Your task to perform on an android device: Go to wifi settings Image 0: 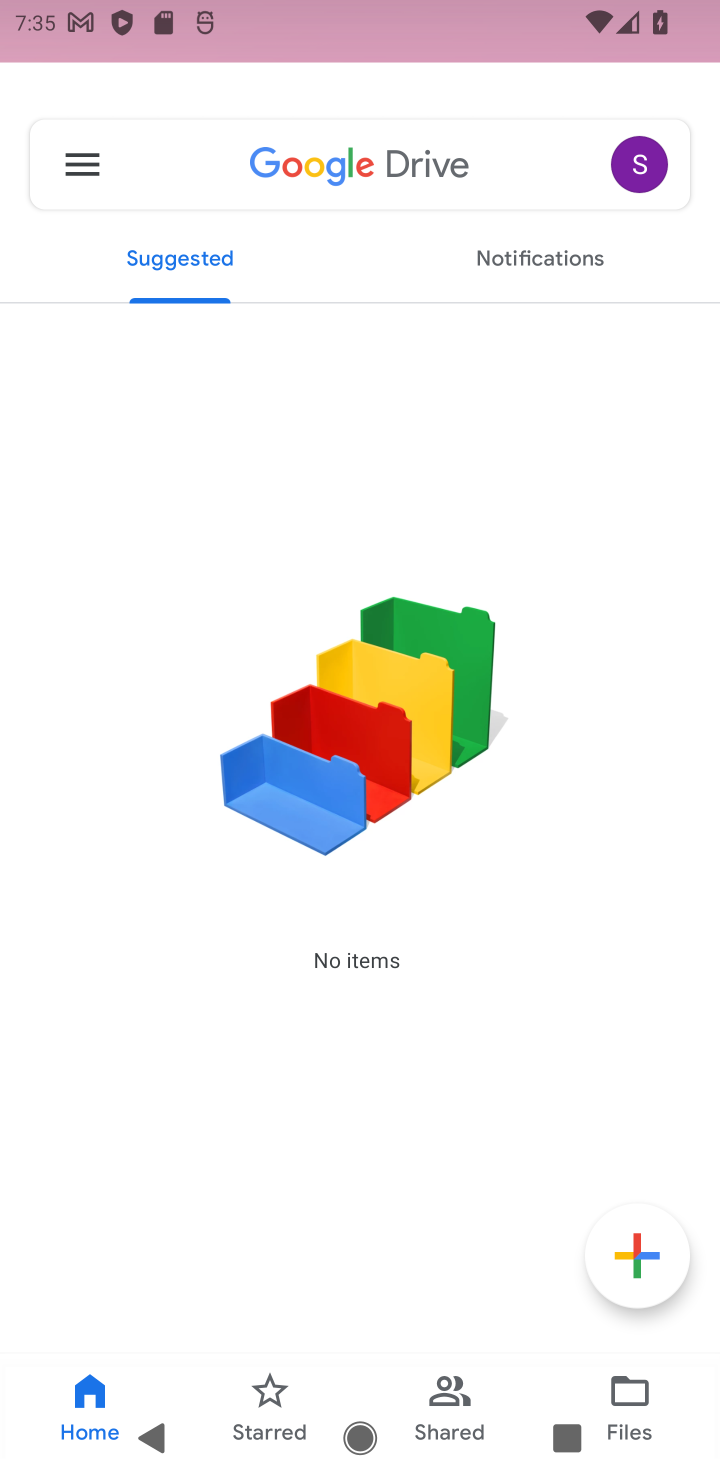
Step 0: press home button
Your task to perform on an android device: Go to wifi settings Image 1: 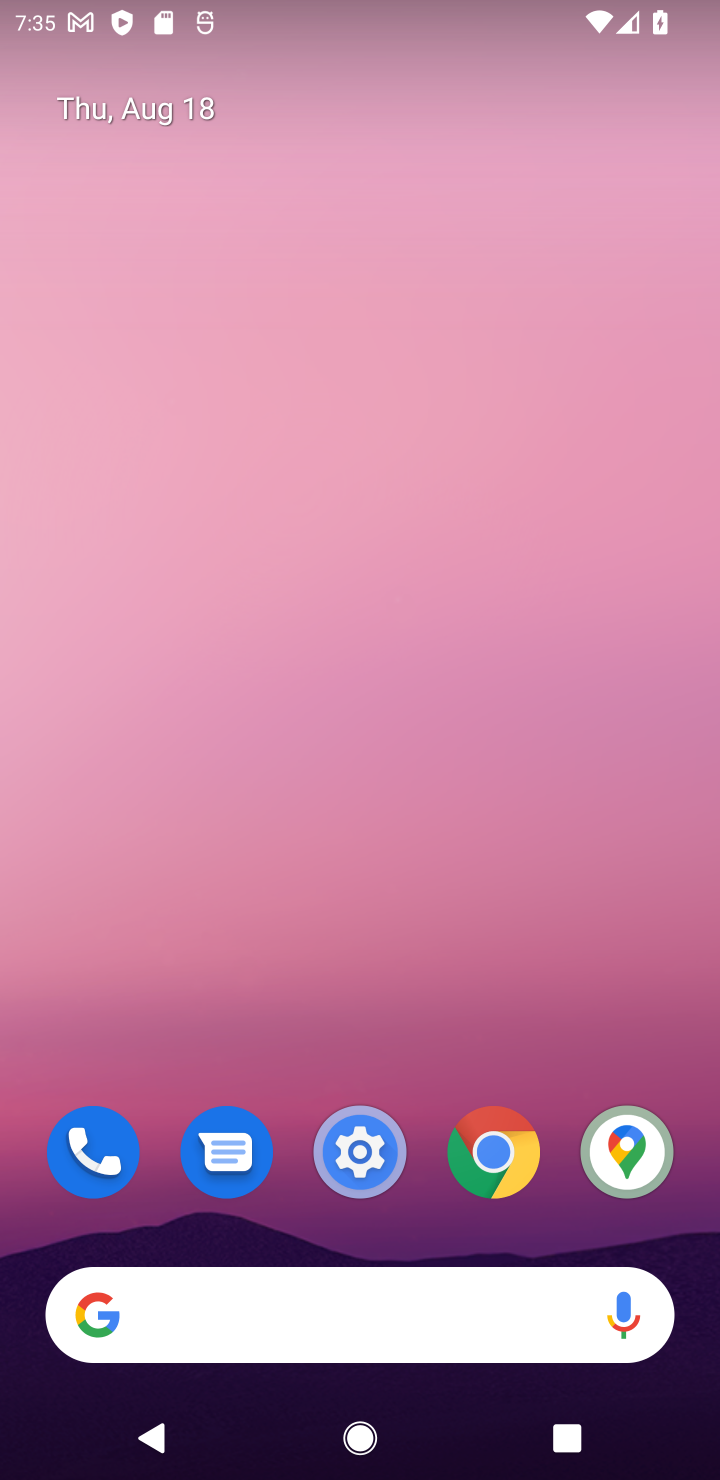
Step 1: click (385, 1187)
Your task to perform on an android device: Go to wifi settings Image 2: 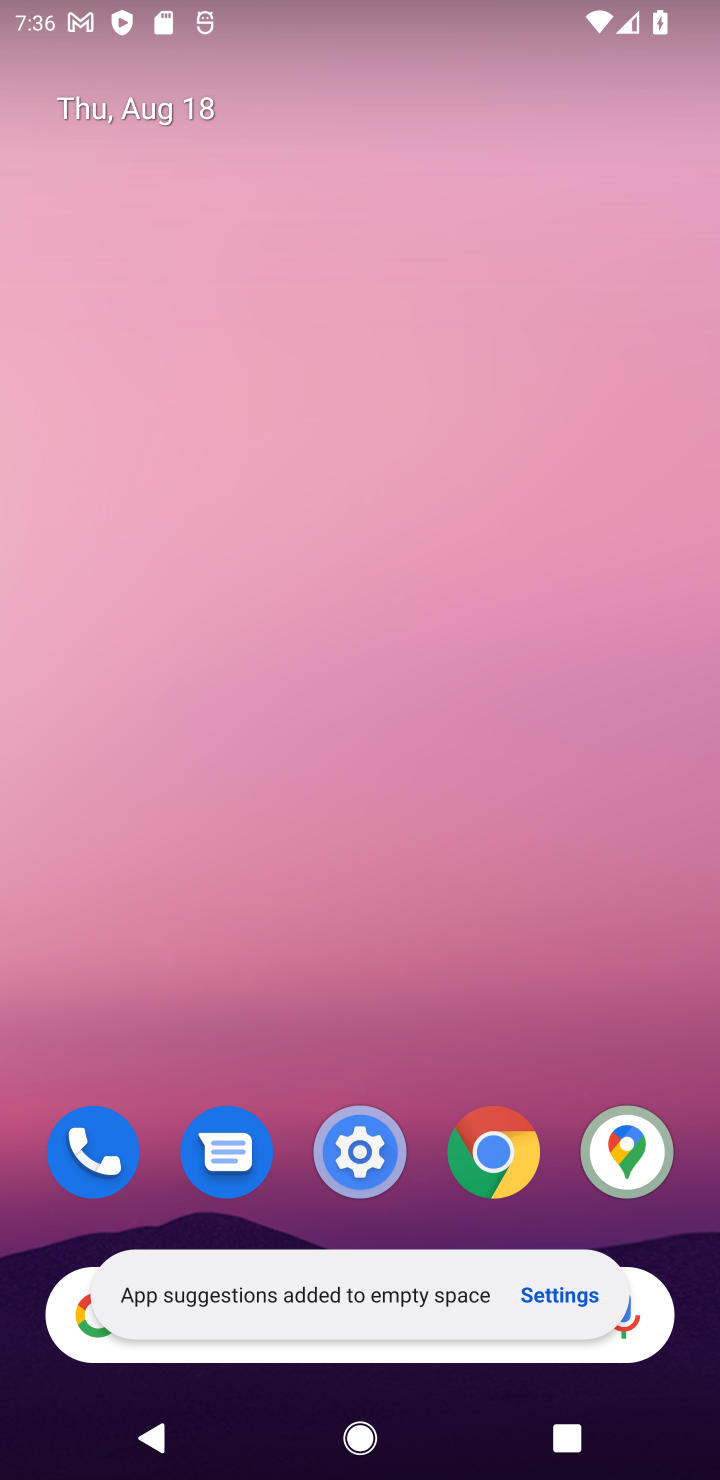
Step 2: click (371, 1157)
Your task to perform on an android device: Go to wifi settings Image 3: 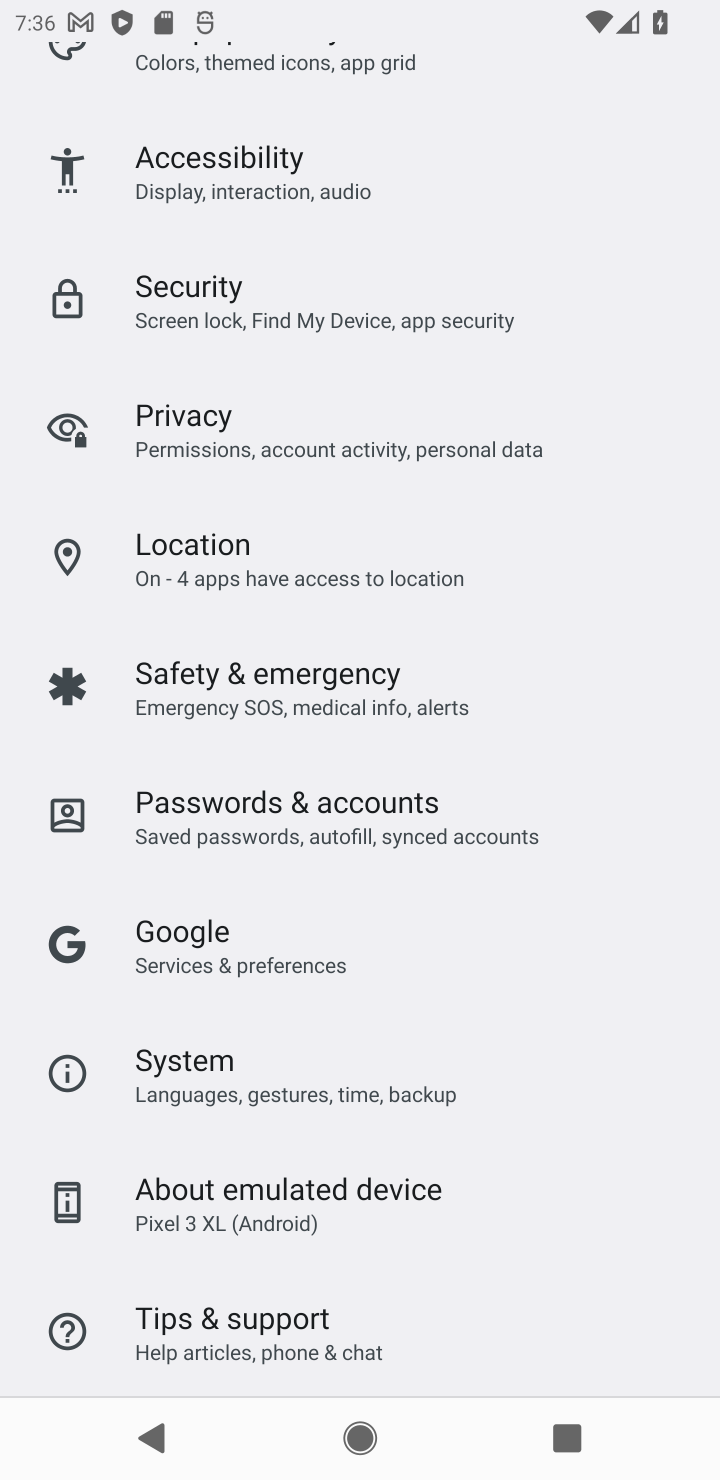
Step 3: drag from (502, 161) to (553, 1470)
Your task to perform on an android device: Go to wifi settings Image 4: 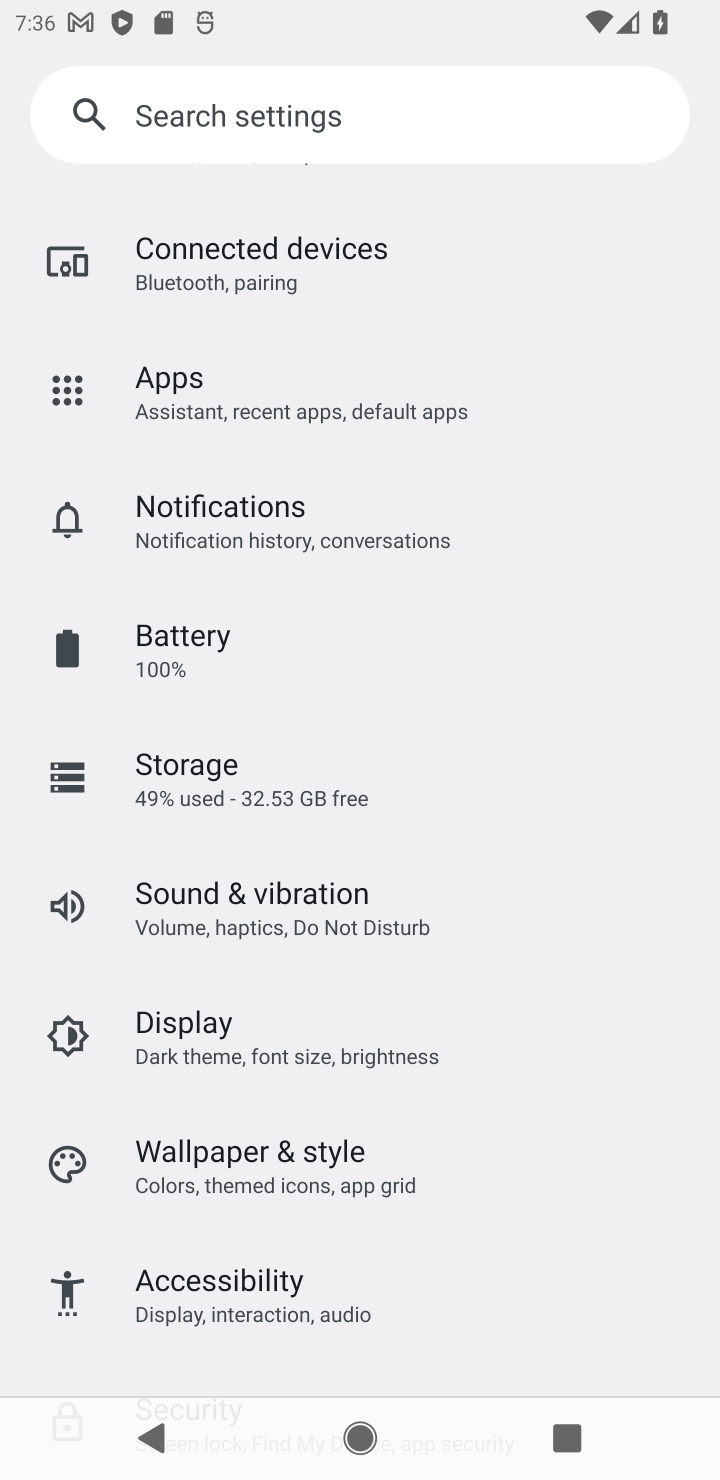
Step 4: drag from (489, 307) to (435, 1374)
Your task to perform on an android device: Go to wifi settings Image 5: 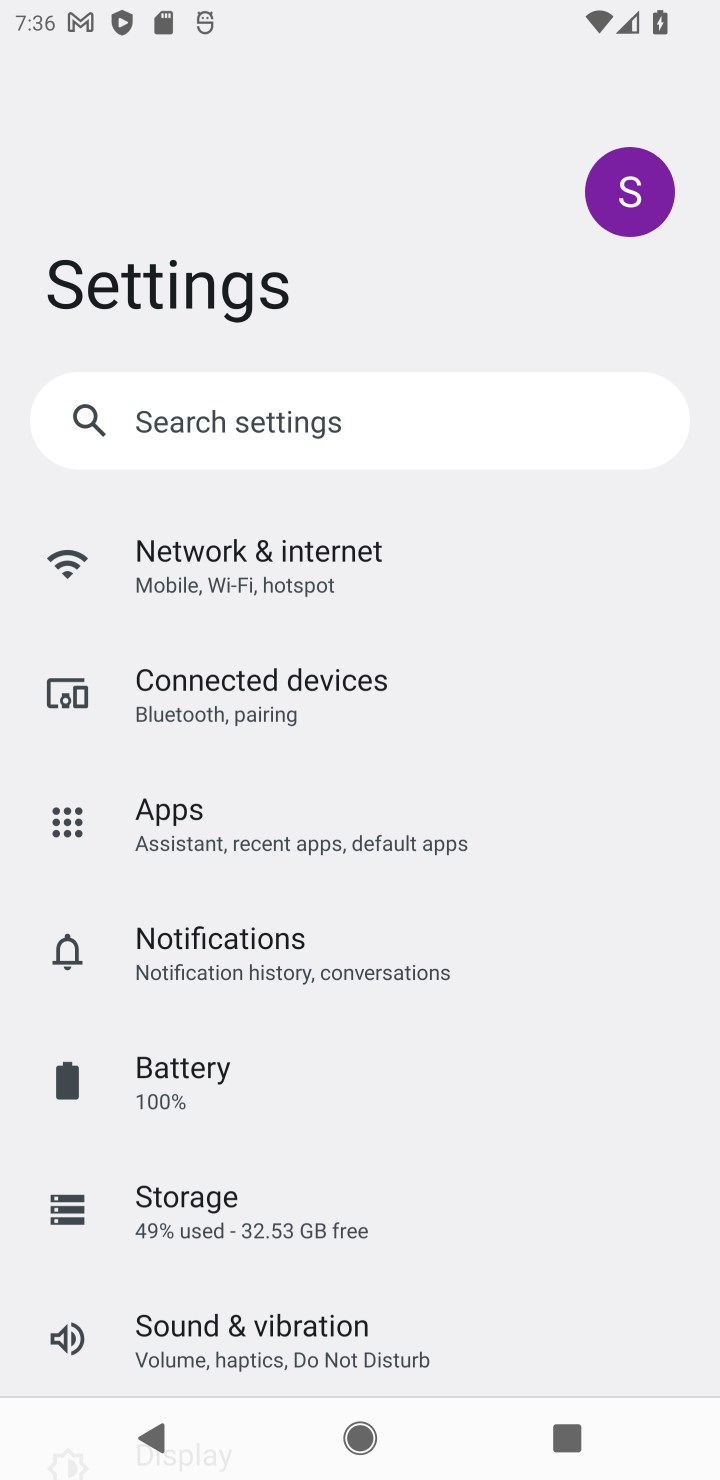
Step 5: click (216, 587)
Your task to perform on an android device: Go to wifi settings Image 6: 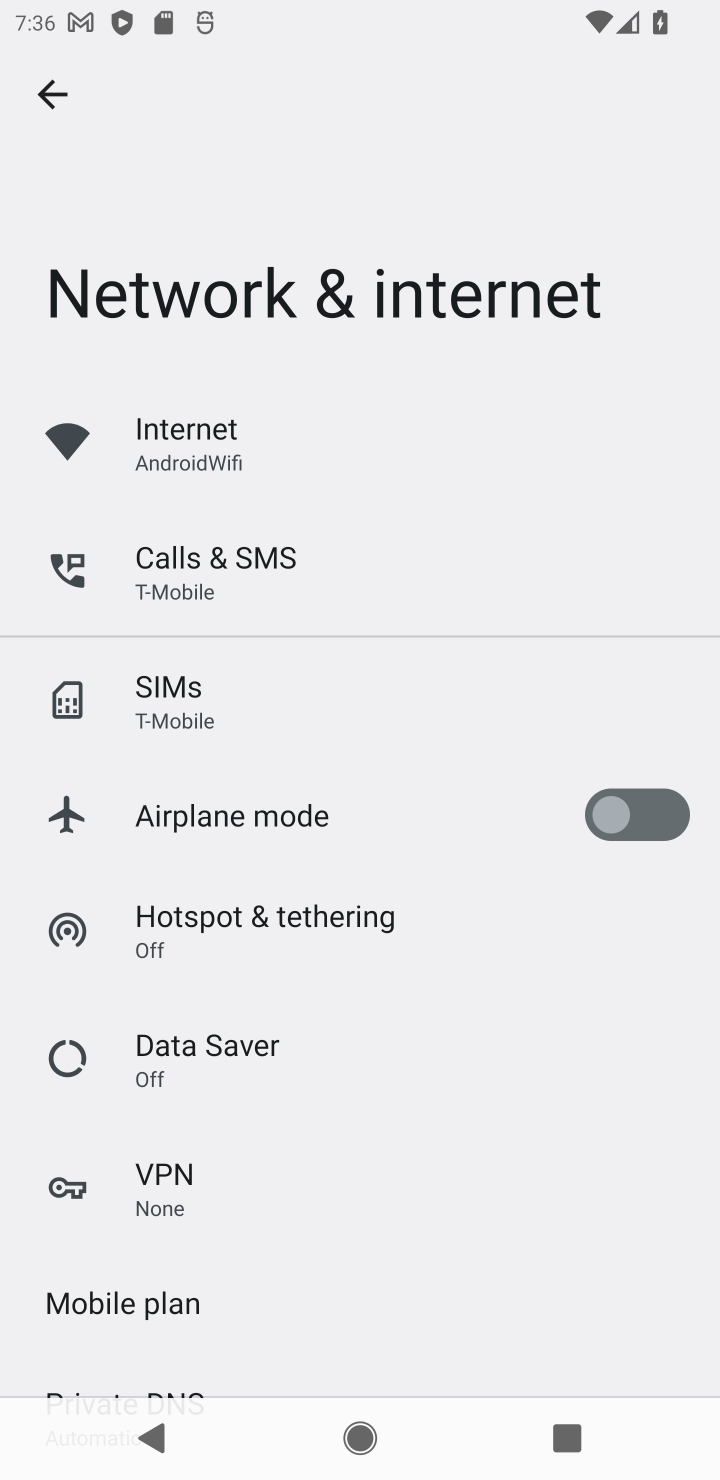
Step 6: click (187, 445)
Your task to perform on an android device: Go to wifi settings Image 7: 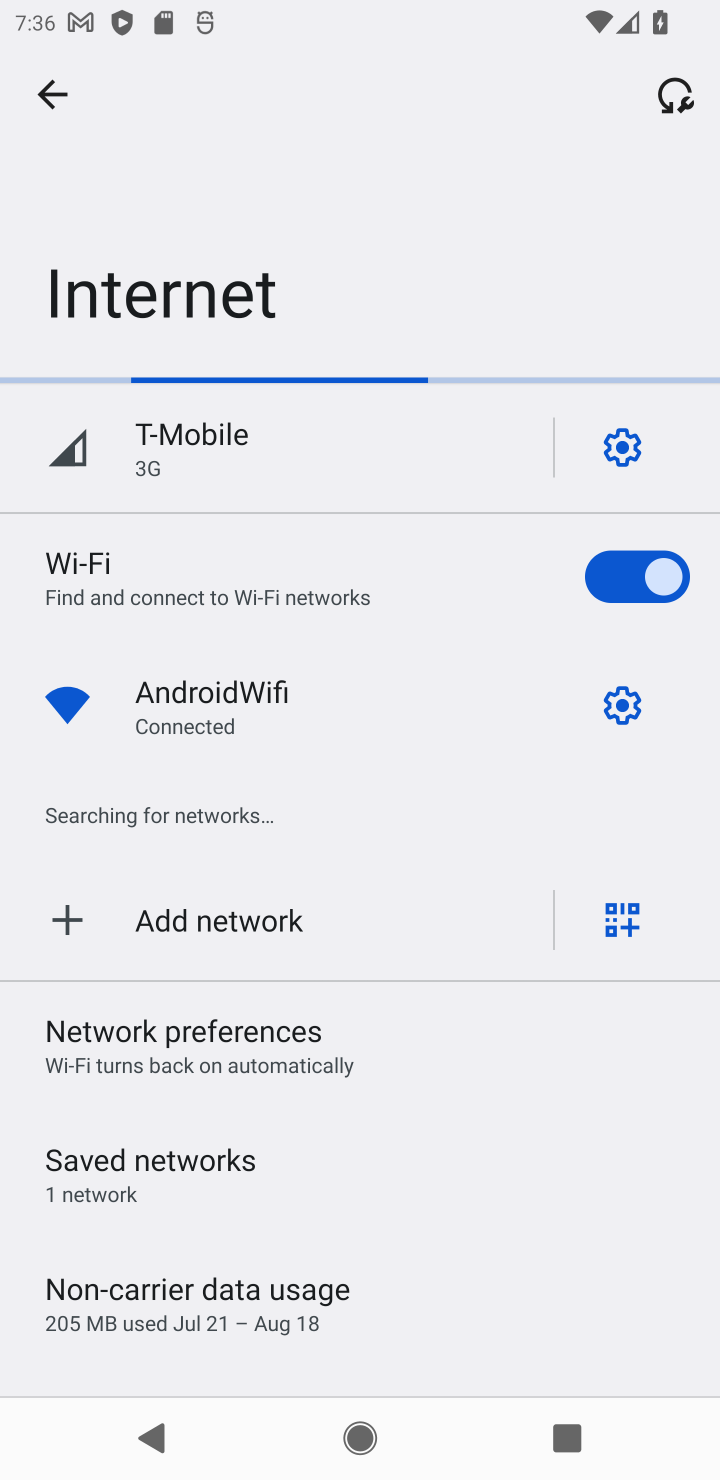
Step 7: click (186, 710)
Your task to perform on an android device: Go to wifi settings Image 8: 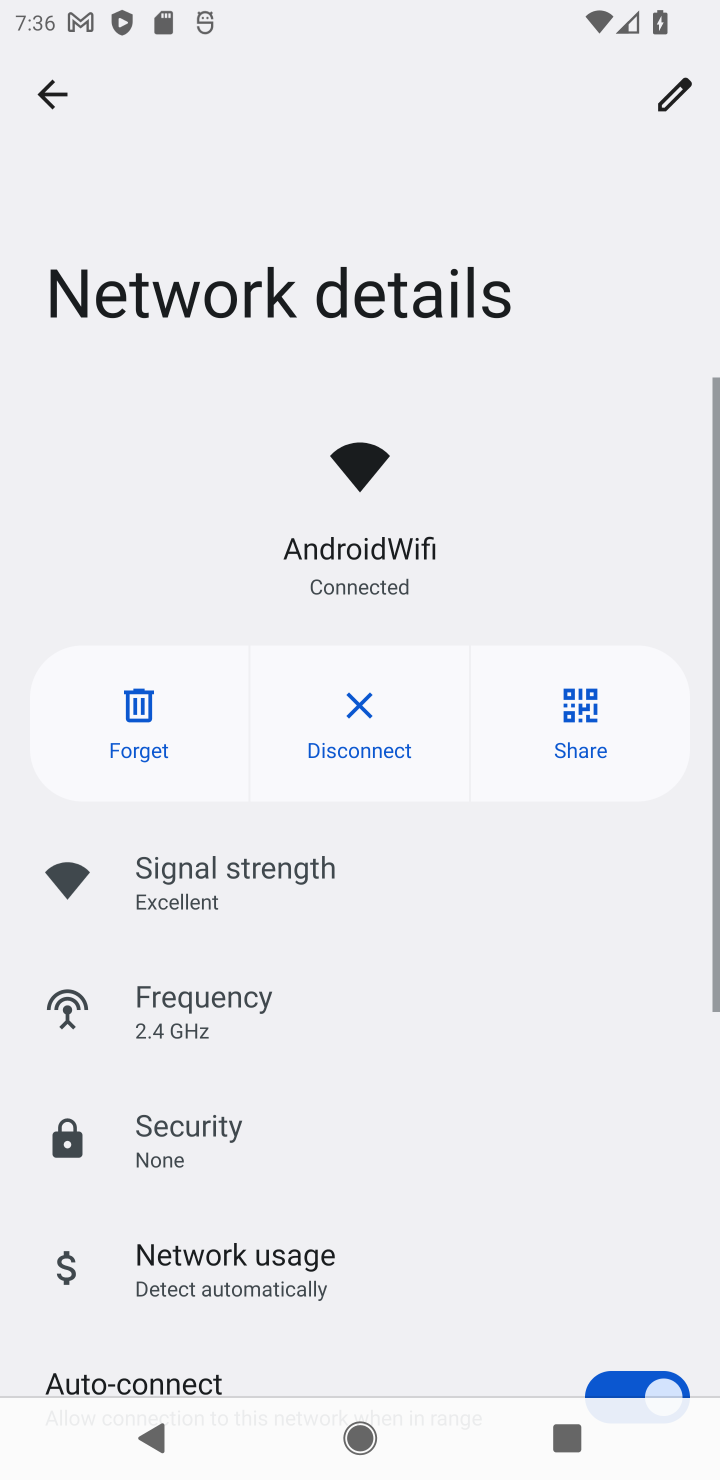
Step 8: task complete